Your task to perform on an android device: Go to Amazon Image 0: 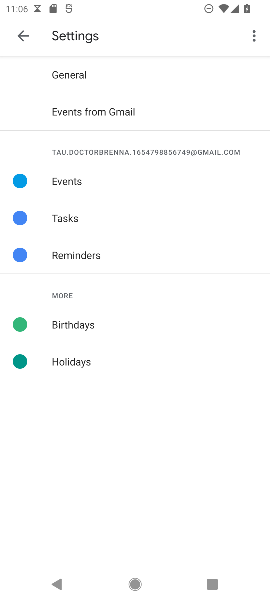
Step 0: press home button
Your task to perform on an android device: Go to Amazon Image 1: 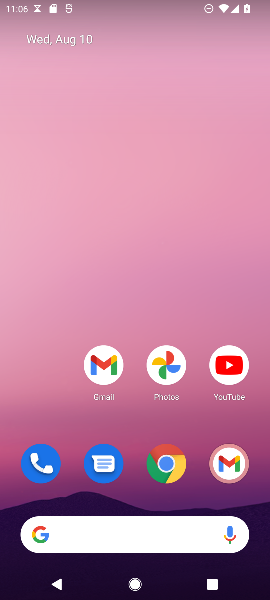
Step 1: click (85, 538)
Your task to perform on an android device: Go to Amazon Image 2: 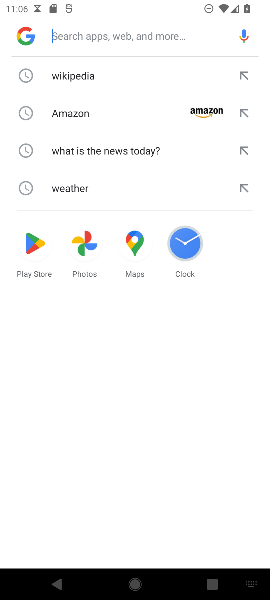
Step 2: click (83, 113)
Your task to perform on an android device: Go to Amazon Image 3: 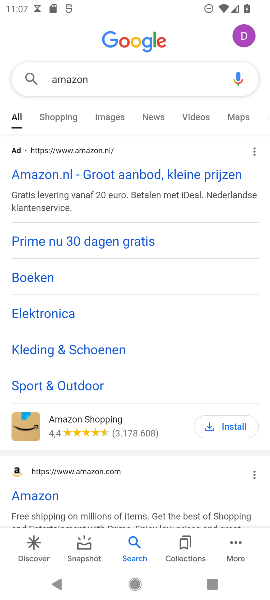
Step 3: task complete